Your task to perform on an android device: Show me the alarms in the clock app Image 0: 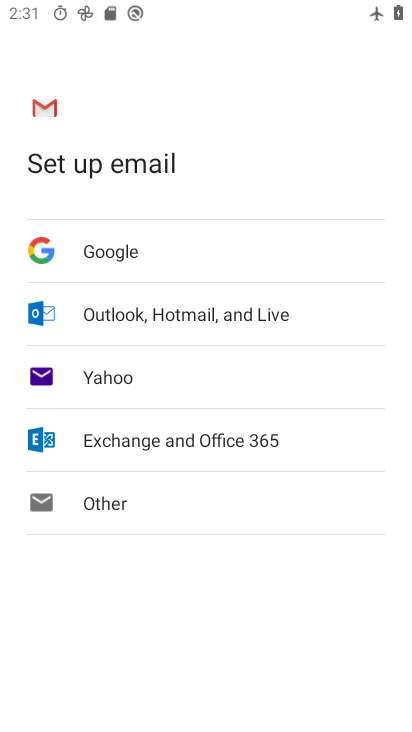
Step 0: press home button
Your task to perform on an android device: Show me the alarms in the clock app Image 1: 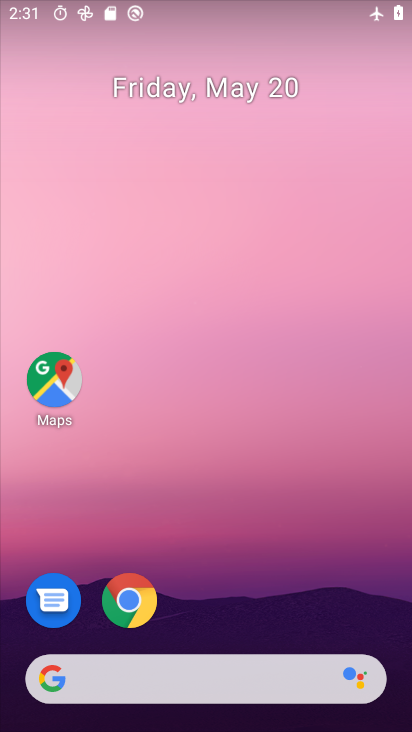
Step 1: drag from (273, 583) to (136, 38)
Your task to perform on an android device: Show me the alarms in the clock app Image 2: 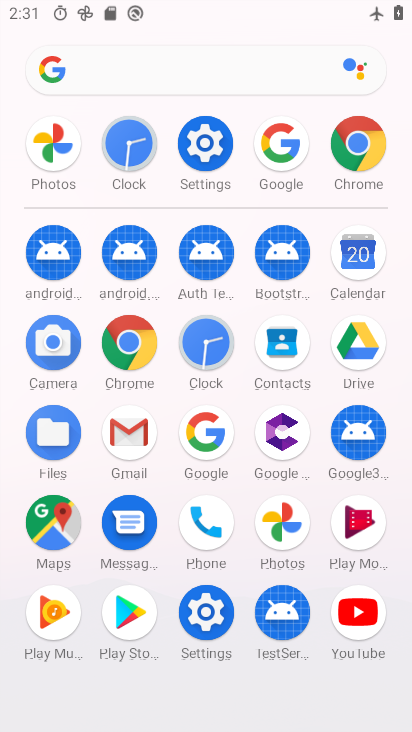
Step 2: click (210, 347)
Your task to perform on an android device: Show me the alarms in the clock app Image 3: 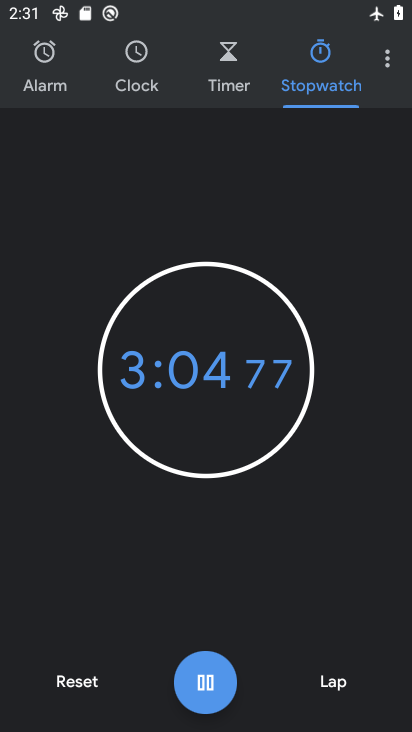
Step 3: click (43, 73)
Your task to perform on an android device: Show me the alarms in the clock app Image 4: 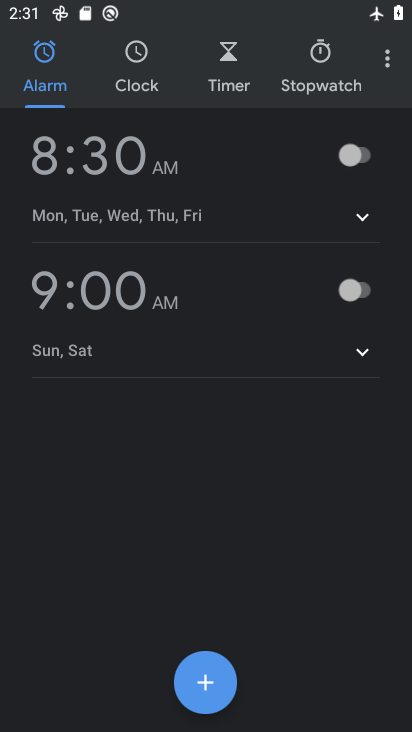
Step 4: task complete